Your task to perform on an android device: What is the news today? Image 0: 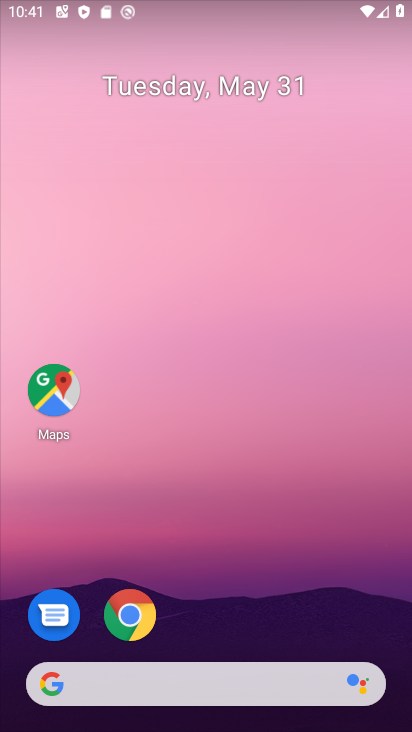
Step 0: task complete